Your task to perform on an android device: open device folders in google photos Image 0: 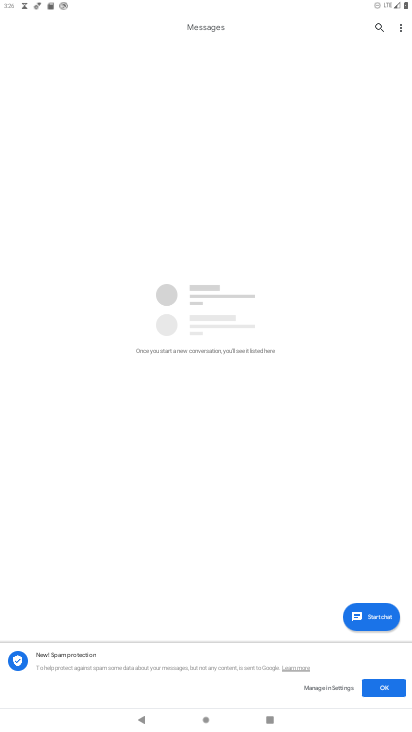
Step 0: press home button
Your task to perform on an android device: open device folders in google photos Image 1: 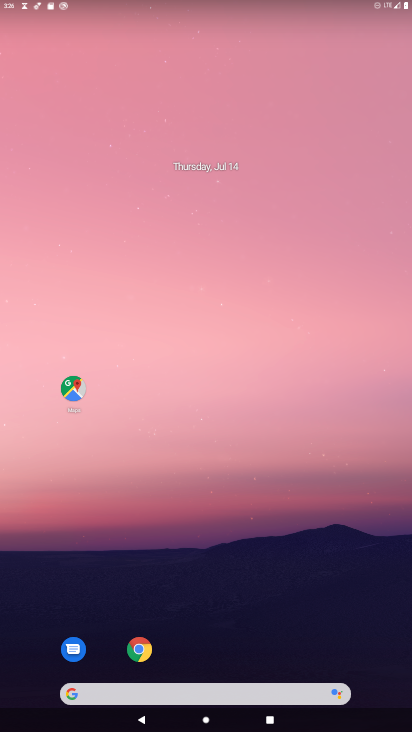
Step 1: drag from (265, 670) to (307, 43)
Your task to perform on an android device: open device folders in google photos Image 2: 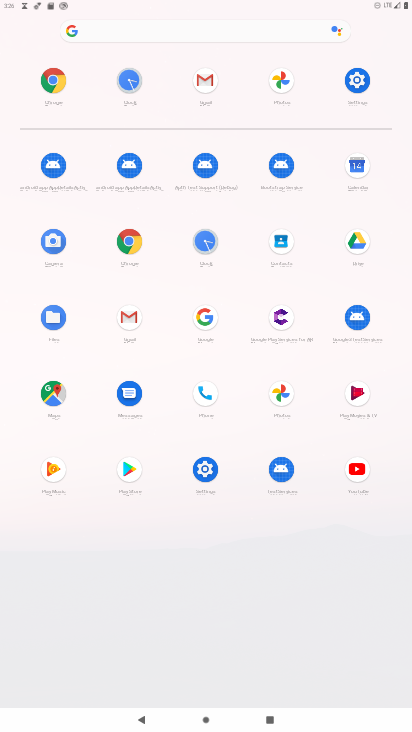
Step 2: click (290, 391)
Your task to perform on an android device: open device folders in google photos Image 3: 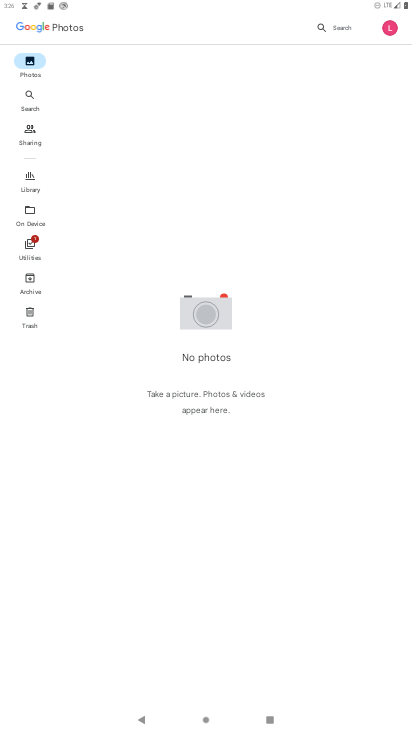
Step 3: click (21, 213)
Your task to perform on an android device: open device folders in google photos Image 4: 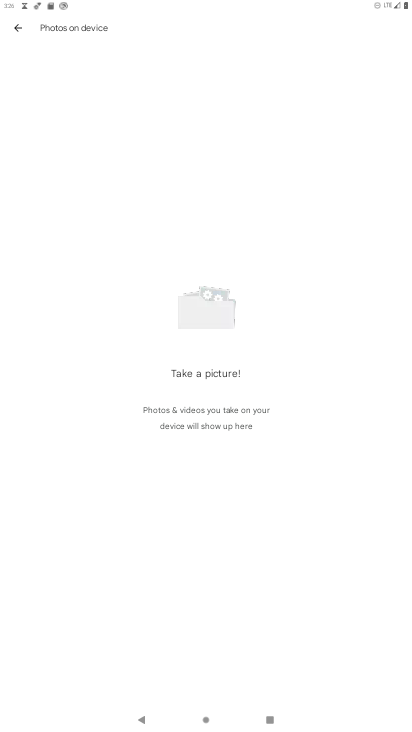
Step 4: task complete